Your task to perform on an android device: Go to settings Image 0: 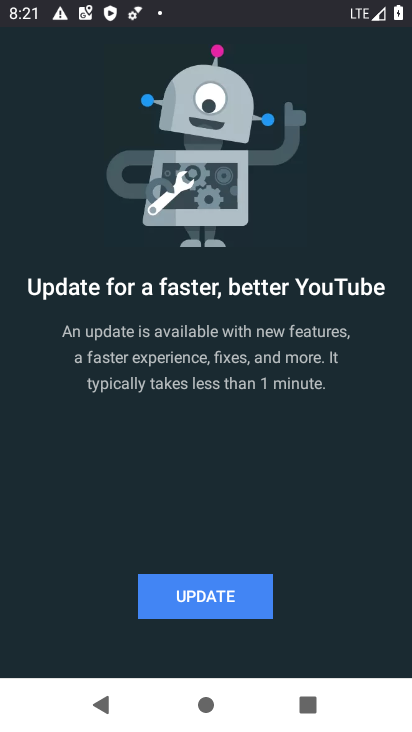
Step 0: press home button
Your task to perform on an android device: Go to settings Image 1: 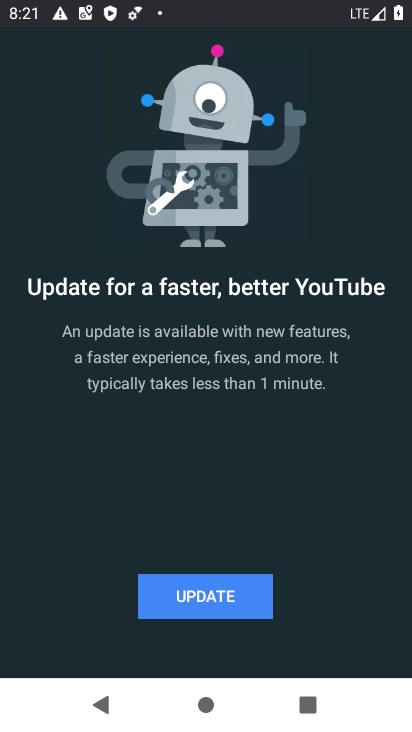
Step 1: press home button
Your task to perform on an android device: Go to settings Image 2: 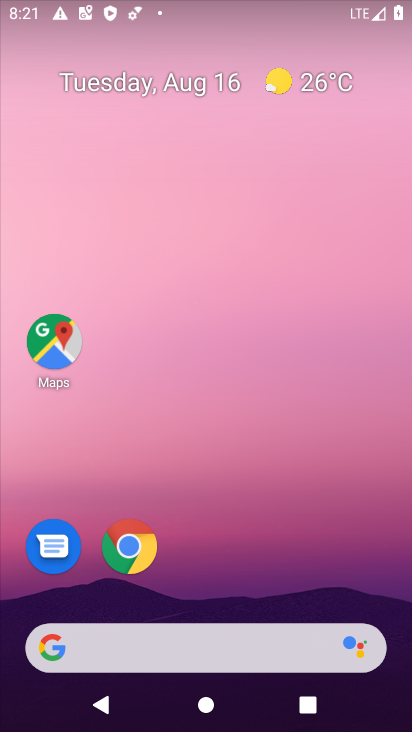
Step 2: drag from (228, 560) to (246, 1)
Your task to perform on an android device: Go to settings Image 3: 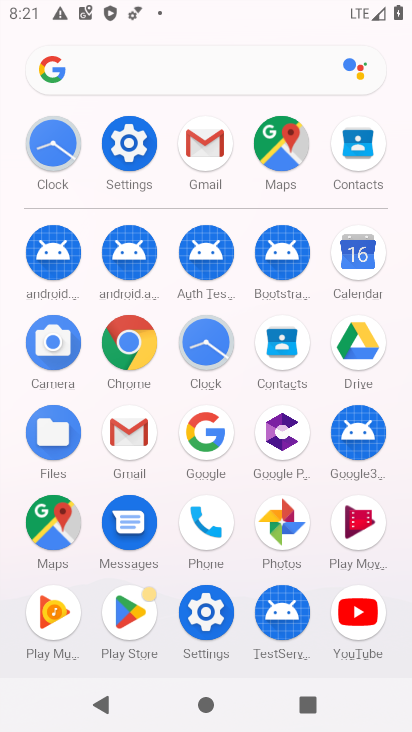
Step 3: click (133, 137)
Your task to perform on an android device: Go to settings Image 4: 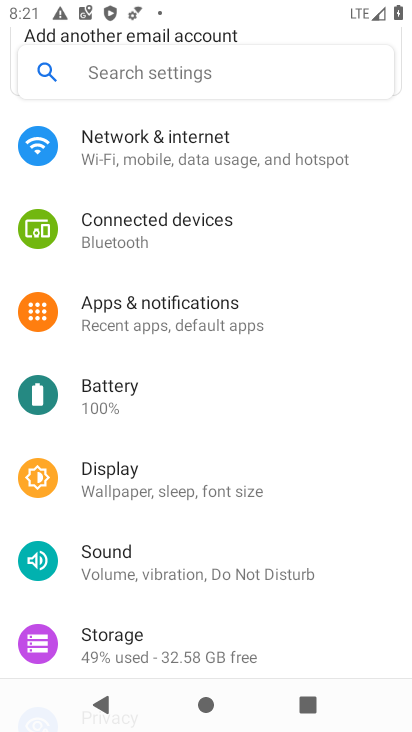
Step 4: task complete